Your task to perform on an android device: turn on airplane mode Image 0: 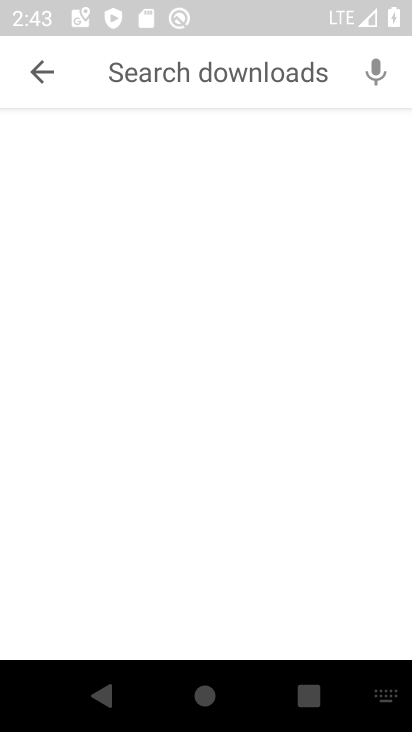
Step 0: press home button
Your task to perform on an android device: turn on airplane mode Image 1: 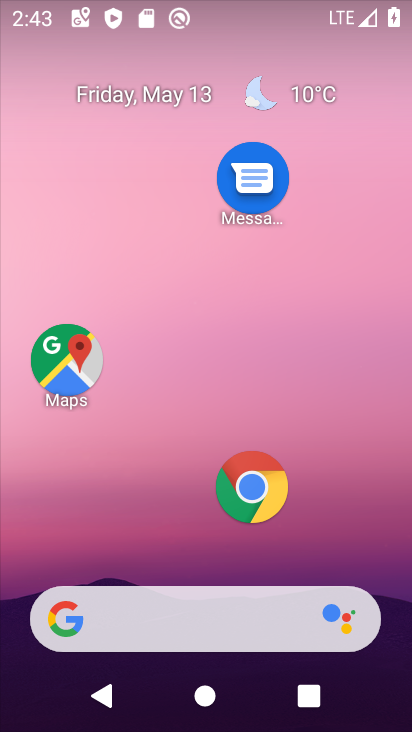
Step 1: drag from (136, 533) to (134, 163)
Your task to perform on an android device: turn on airplane mode Image 2: 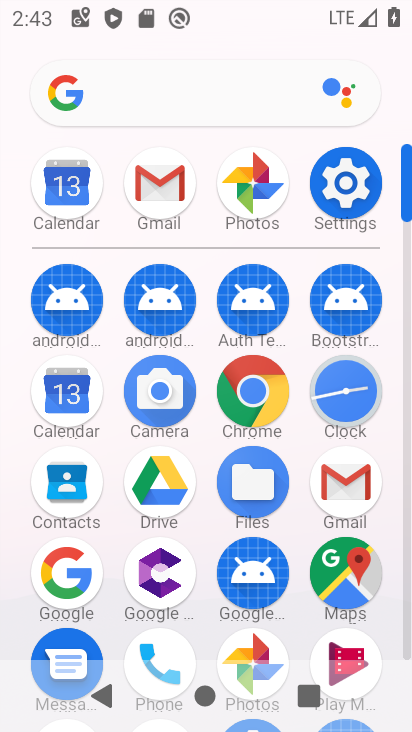
Step 2: click (341, 178)
Your task to perform on an android device: turn on airplane mode Image 3: 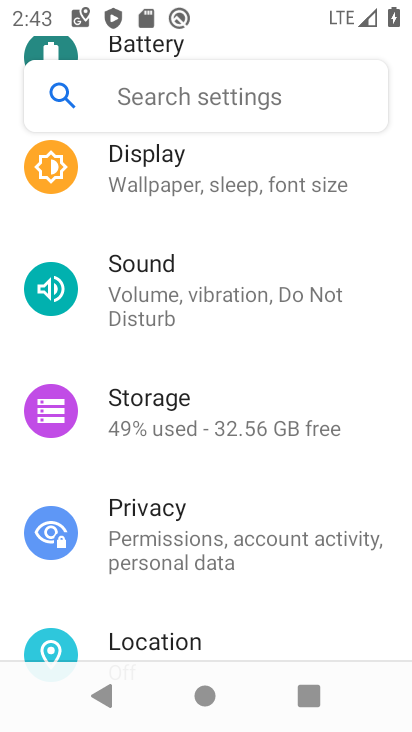
Step 3: drag from (210, 236) to (263, 542)
Your task to perform on an android device: turn on airplane mode Image 4: 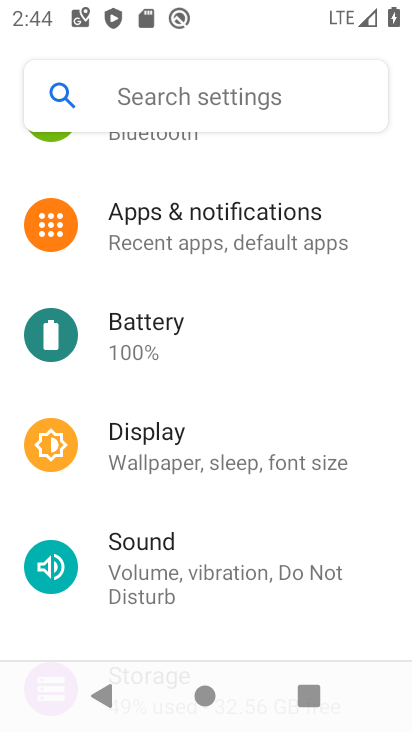
Step 4: drag from (246, 180) to (291, 429)
Your task to perform on an android device: turn on airplane mode Image 5: 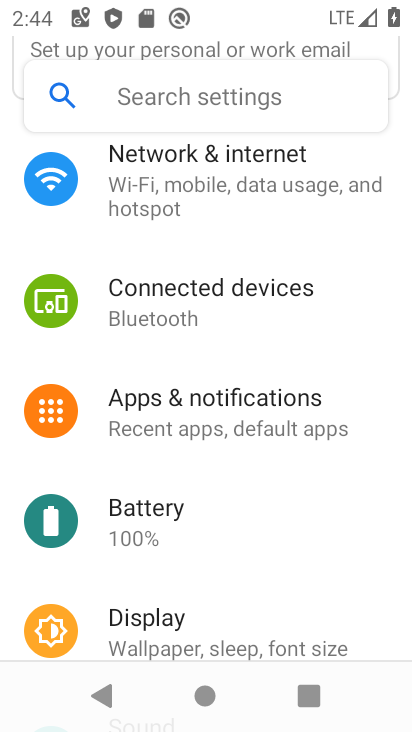
Step 5: drag from (221, 250) to (206, 592)
Your task to perform on an android device: turn on airplane mode Image 6: 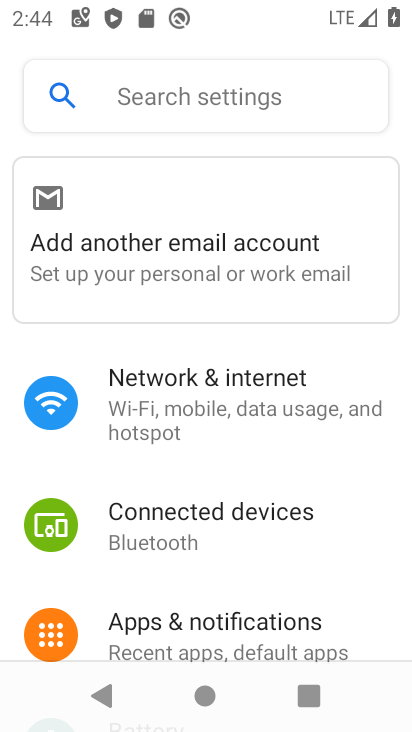
Step 6: click (226, 414)
Your task to perform on an android device: turn on airplane mode Image 7: 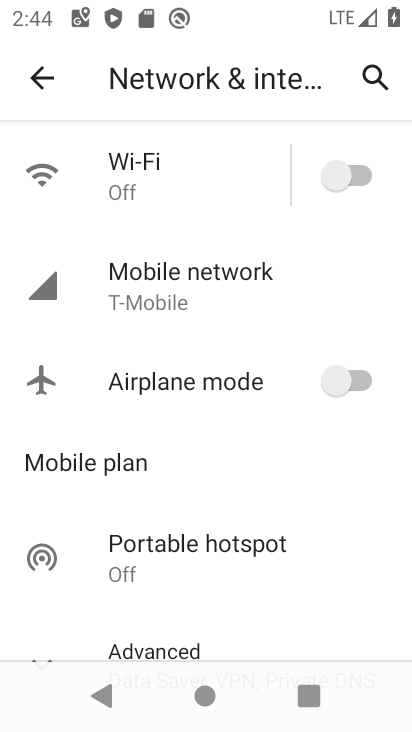
Step 7: click (363, 379)
Your task to perform on an android device: turn on airplane mode Image 8: 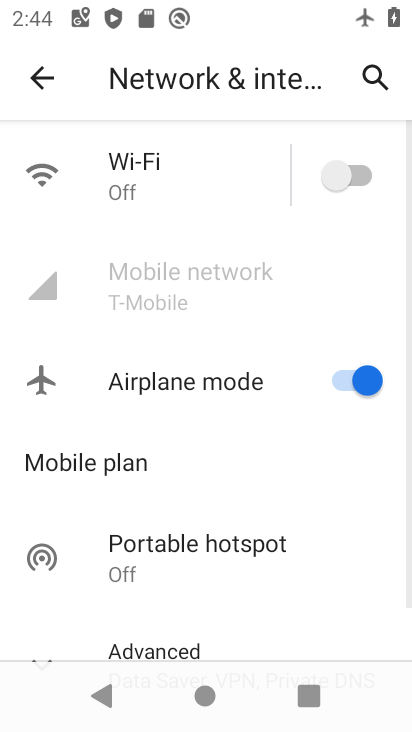
Step 8: task complete